Your task to perform on an android device: Go to Yahoo.com Image 0: 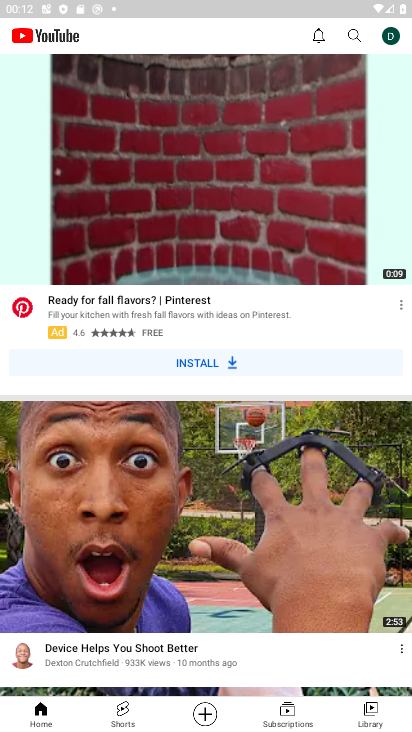
Step 0: press home button
Your task to perform on an android device: Go to Yahoo.com Image 1: 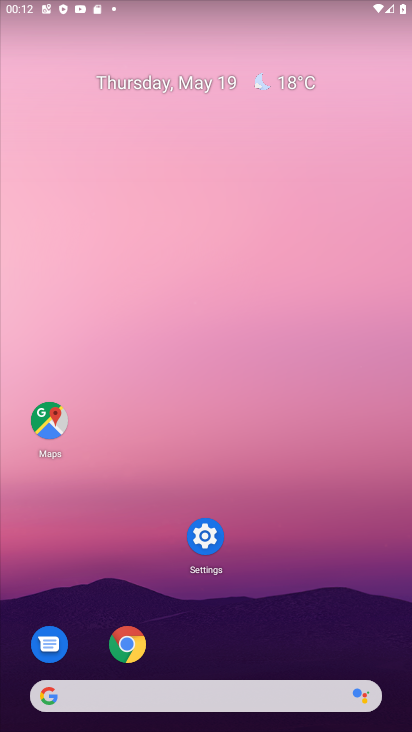
Step 1: click (131, 653)
Your task to perform on an android device: Go to Yahoo.com Image 2: 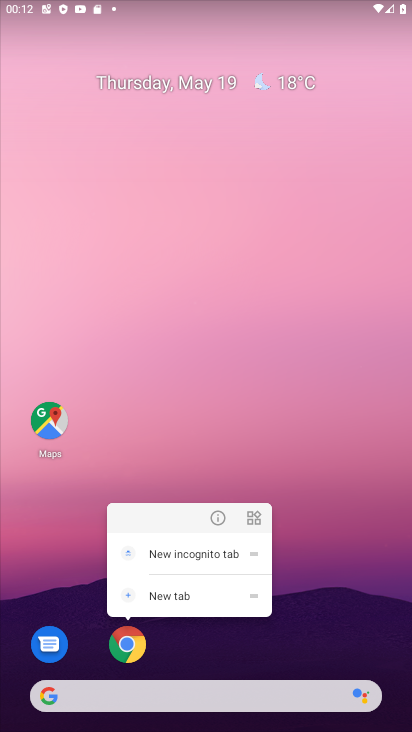
Step 2: click (130, 650)
Your task to perform on an android device: Go to Yahoo.com Image 3: 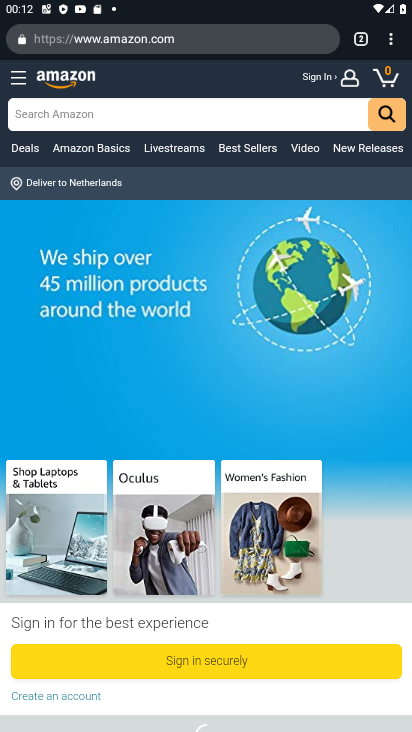
Step 3: click (230, 50)
Your task to perform on an android device: Go to Yahoo.com Image 4: 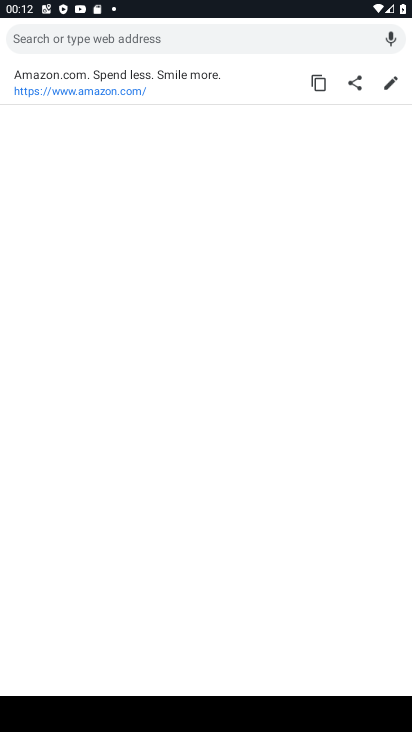
Step 4: type "yahoo.com"
Your task to perform on an android device: Go to Yahoo.com Image 5: 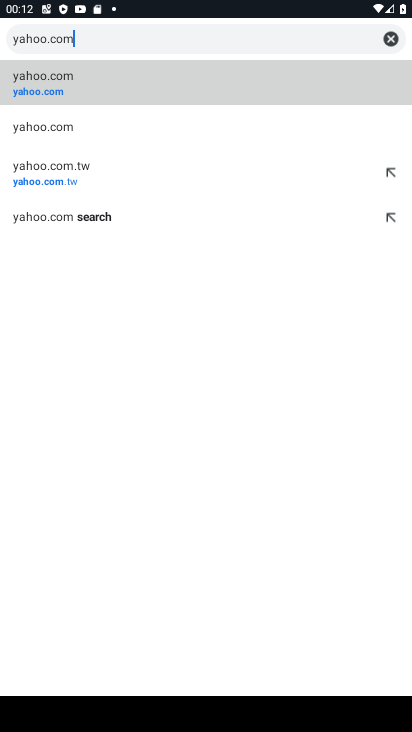
Step 5: click (49, 84)
Your task to perform on an android device: Go to Yahoo.com Image 6: 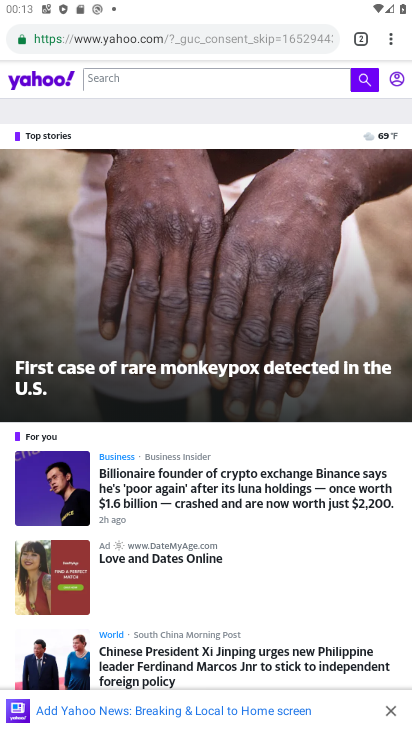
Step 6: task complete